Your task to perform on an android device: empty trash in google photos Image 0: 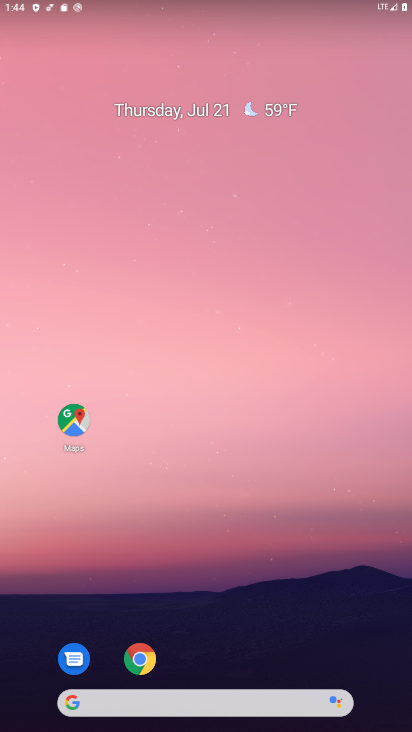
Step 0: drag from (202, 705) to (188, 78)
Your task to perform on an android device: empty trash in google photos Image 1: 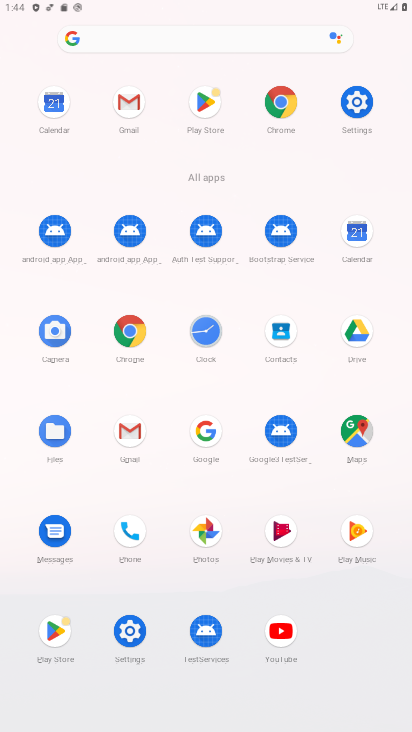
Step 1: click (132, 445)
Your task to perform on an android device: empty trash in google photos Image 2: 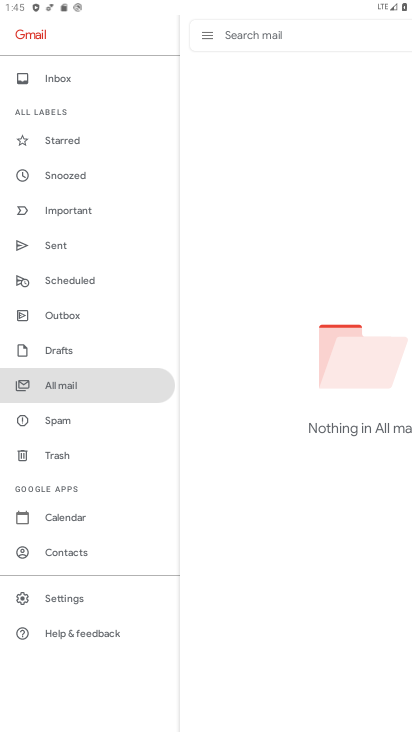
Step 2: click (93, 454)
Your task to perform on an android device: empty trash in google photos Image 3: 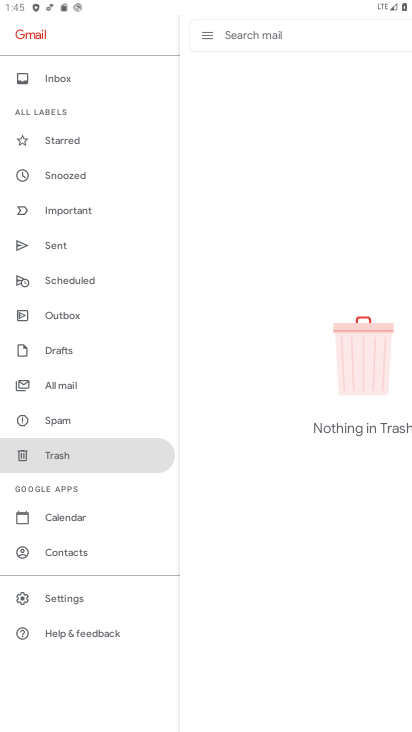
Step 3: task complete